Your task to perform on an android device: check out phone information Image 0: 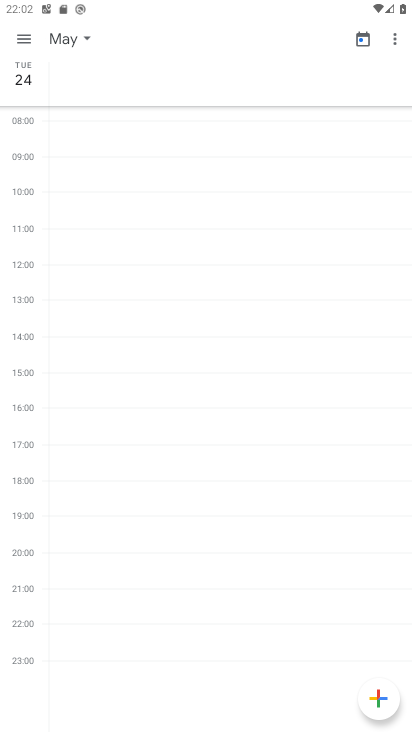
Step 0: press home button
Your task to perform on an android device: check out phone information Image 1: 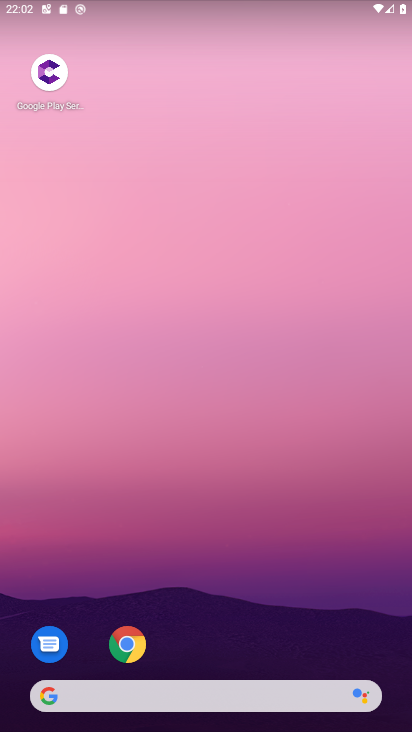
Step 1: drag from (210, 649) to (240, 188)
Your task to perform on an android device: check out phone information Image 2: 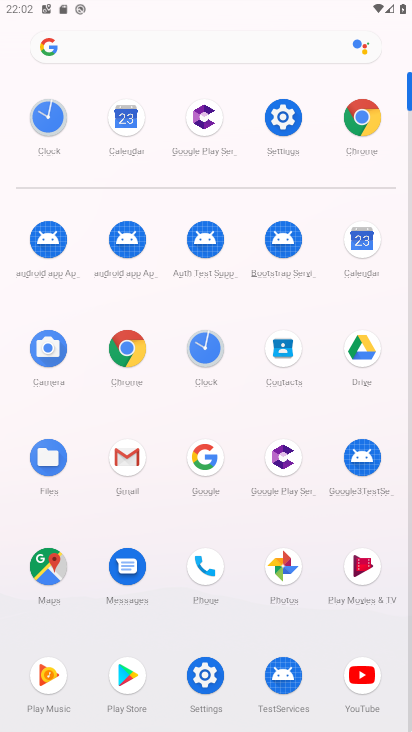
Step 2: click (199, 668)
Your task to perform on an android device: check out phone information Image 3: 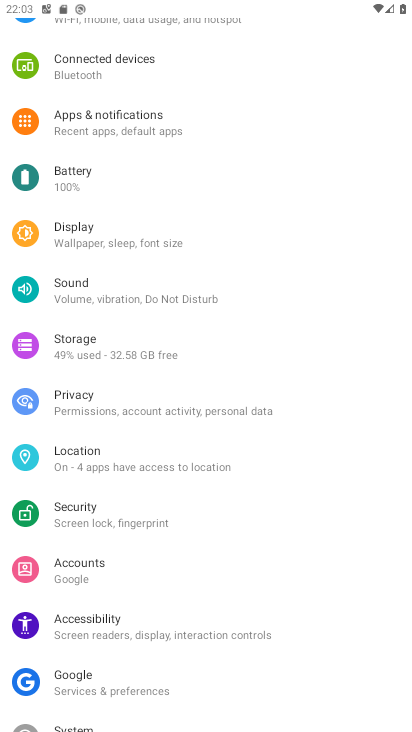
Step 3: drag from (141, 695) to (186, 232)
Your task to perform on an android device: check out phone information Image 4: 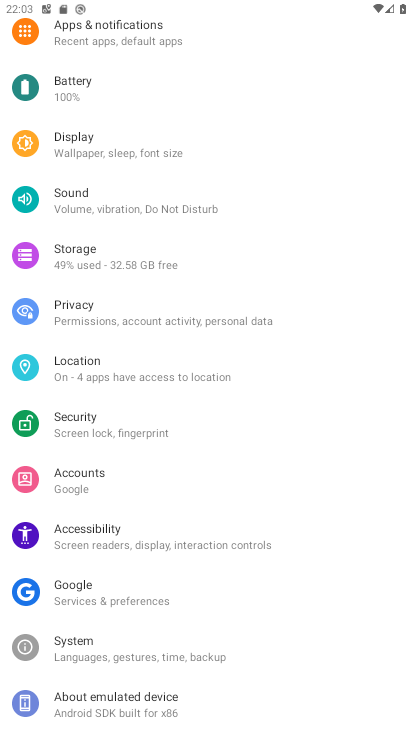
Step 4: click (119, 711)
Your task to perform on an android device: check out phone information Image 5: 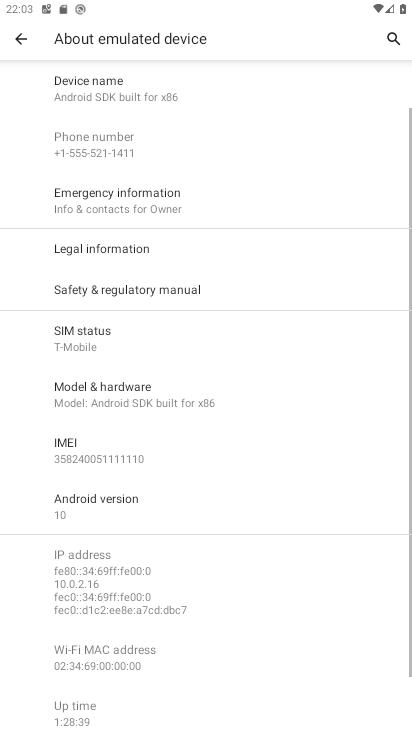
Step 5: task complete